Your task to perform on an android device: Open Reddit.com Image 0: 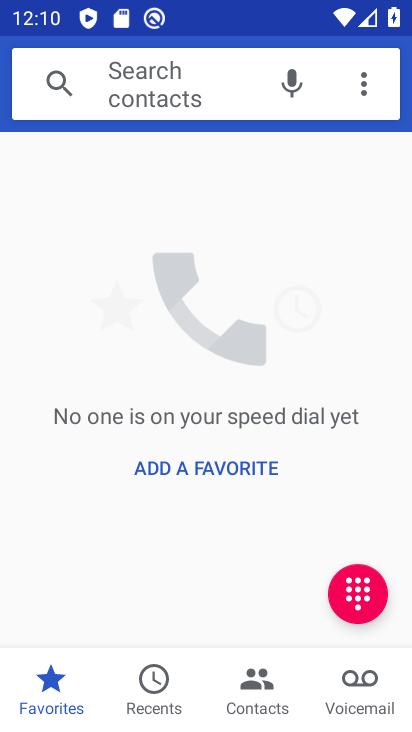
Step 0: press home button
Your task to perform on an android device: Open Reddit.com Image 1: 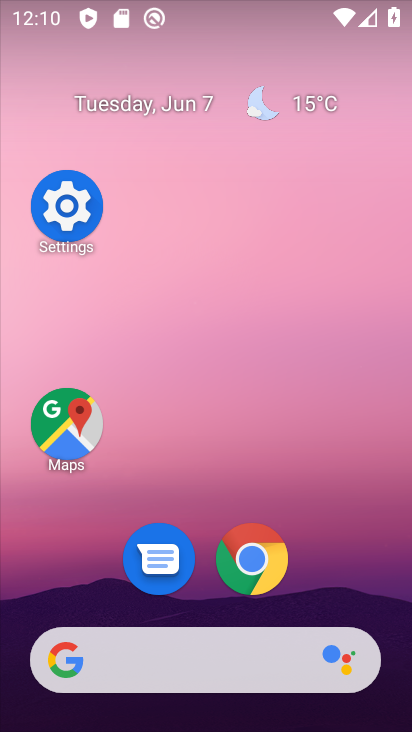
Step 1: drag from (285, 584) to (353, 349)
Your task to perform on an android device: Open Reddit.com Image 2: 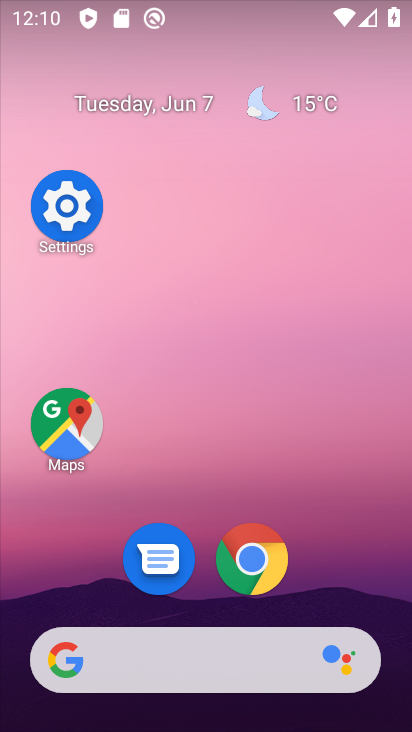
Step 2: drag from (307, 557) to (362, 39)
Your task to perform on an android device: Open Reddit.com Image 3: 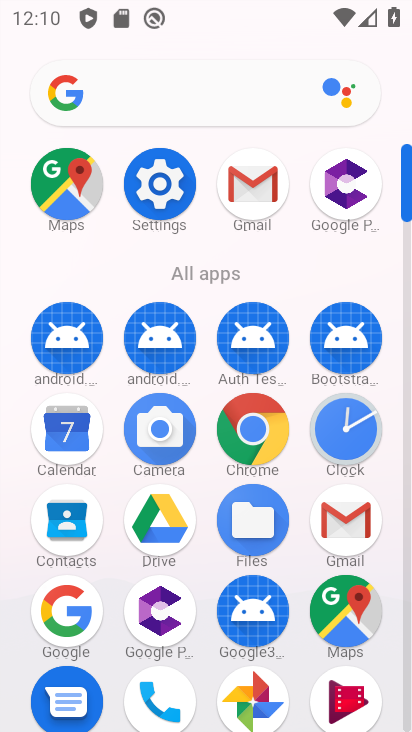
Step 3: drag from (62, 615) to (181, 240)
Your task to perform on an android device: Open Reddit.com Image 4: 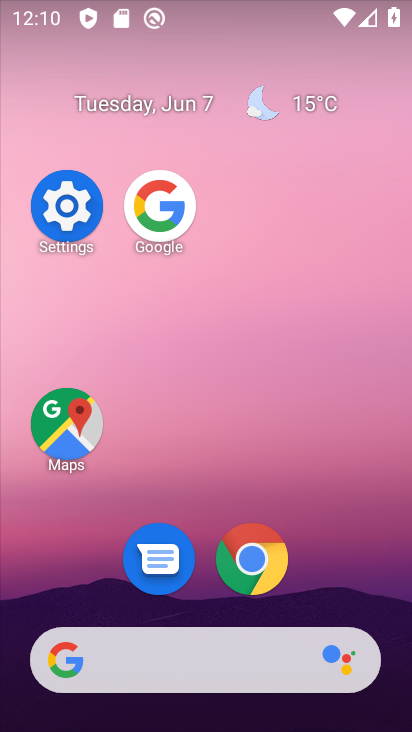
Step 4: click (161, 213)
Your task to perform on an android device: Open Reddit.com Image 5: 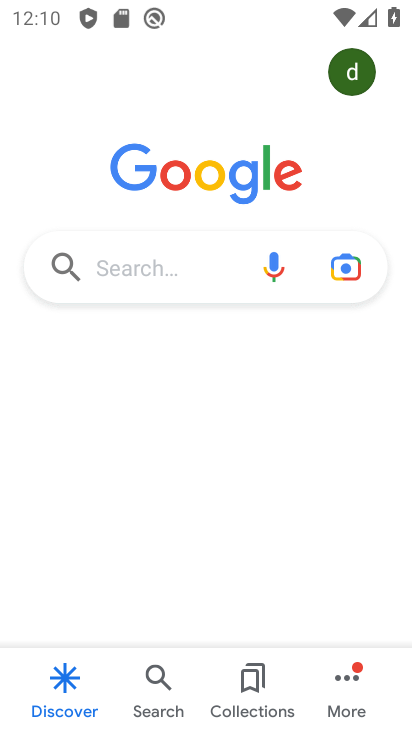
Step 5: click (136, 274)
Your task to perform on an android device: Open Reddit.com Image 6: 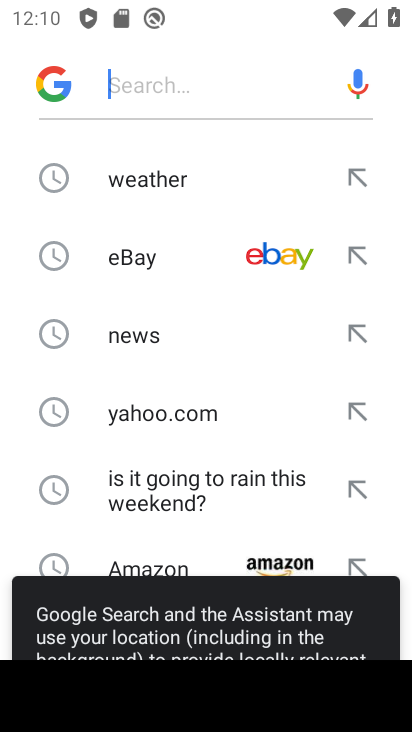
Step 6: drag from (114, 548) to (199, 215)
Your task to perform on an android device: Open Reddit.com Image 7: 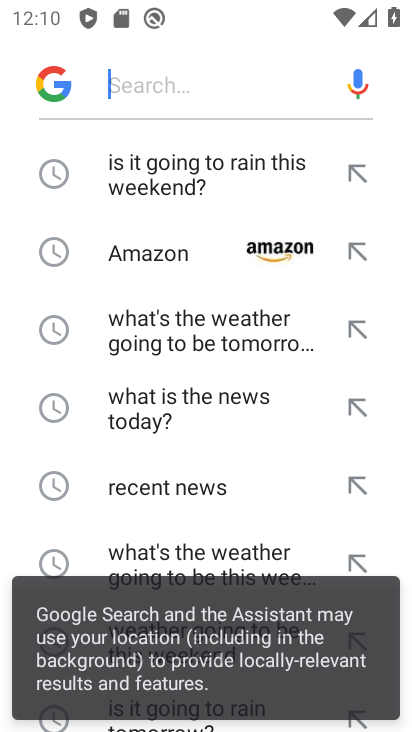
Step 7: drag from (149, 503) to (200, 159)
Your task to perform on an android device: Open Reddit.com Image 8: 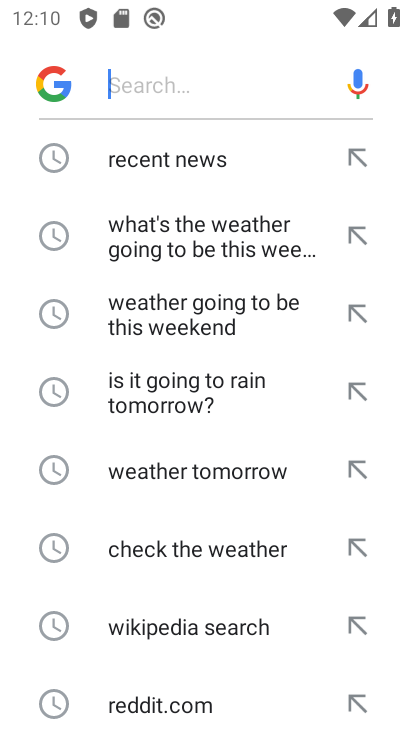
Step 8: drag from (206, 513) to (270, 112)
Your task to perform on an android device: Open Reddit.com Image 9: 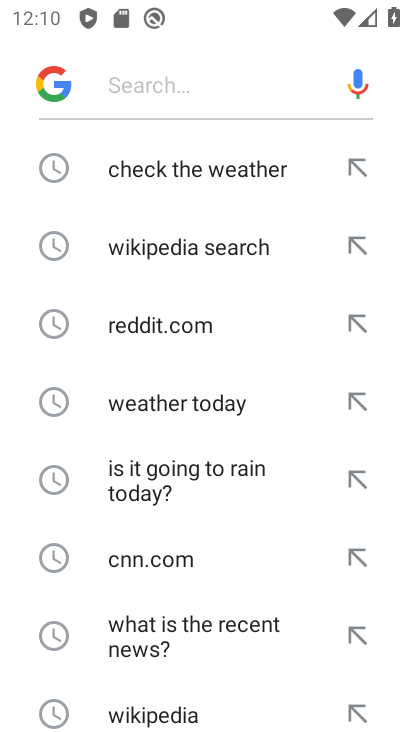
Step 9: click (179, 304)
Your task to perform on an android device: Open Reddit.com Image 10: 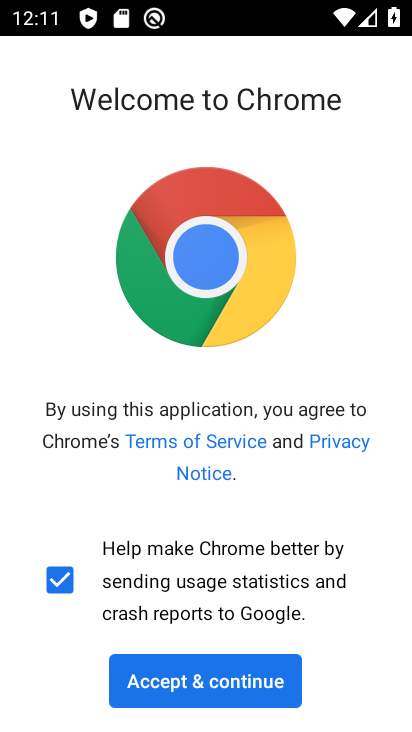
Step 10: press home button
Your task to perform on an android device: Open Reddit.com Image 11: 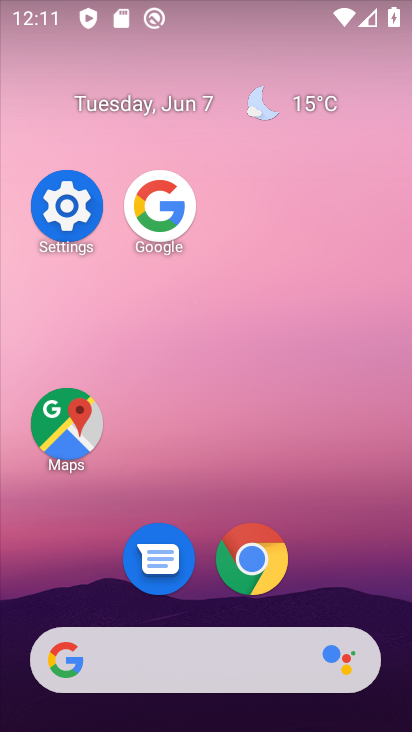
Step 11: click (151, 221)
Your task to perform on an android device: Open Reddit.com Image 12: 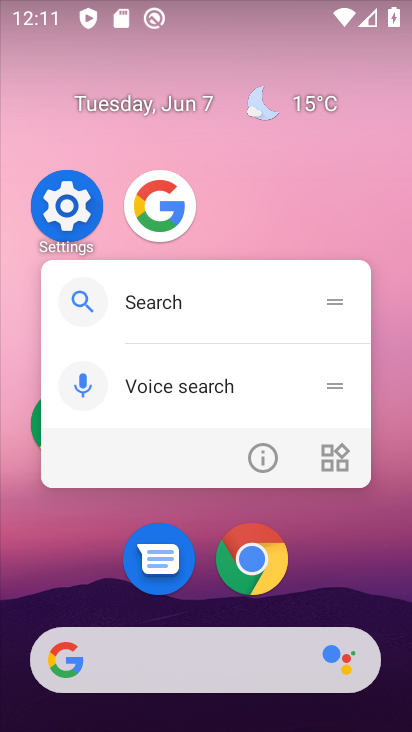
Step 12: click (155, 219)
Your task to perform on an android device: Open Reddit.com Image 13: 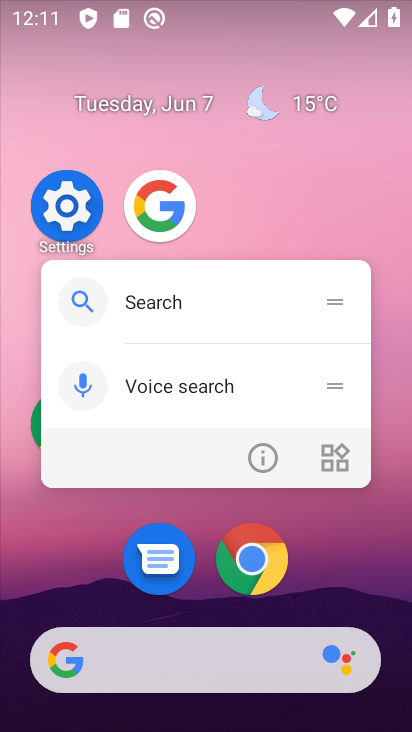
Step 13: click (175, 205)
Your task to perform on an android device: Open Reddit.com Image 14: 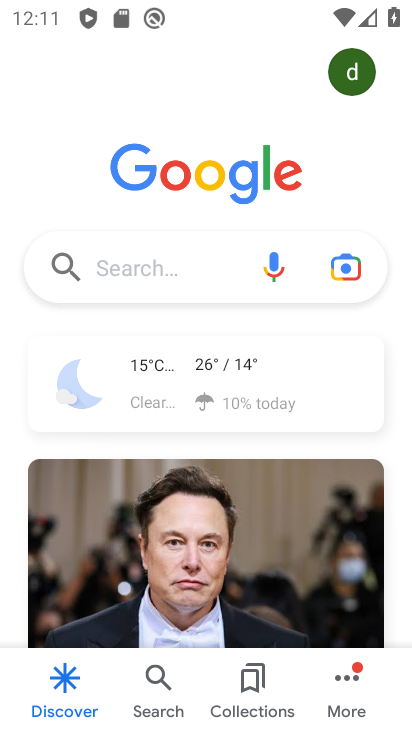
Step 14: click (124, 279)
Your task to perform on an android device: Open Reddit.com Image 15: 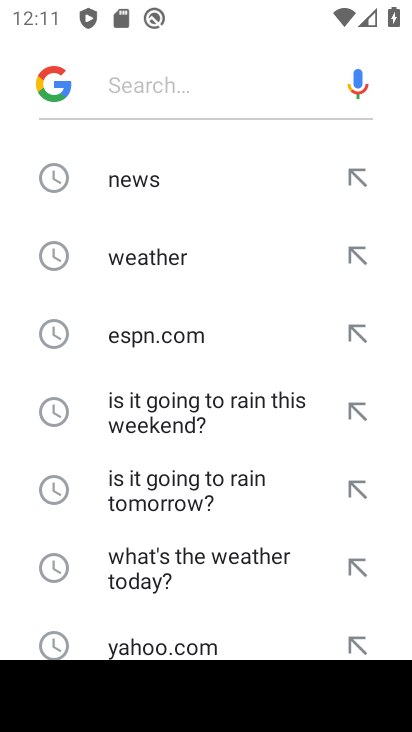
Step 15: drag from (104, 453) to (157, 123)
Your task to perform on an android device: Open Reddit.com Image 16: 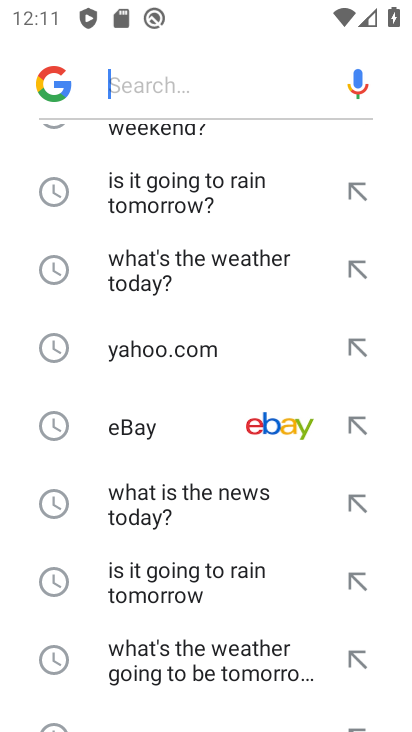
Step 16: drag from (98, 593) to (204, 168)
Your task to perform on an android device: Open Reddit.com Image 17: 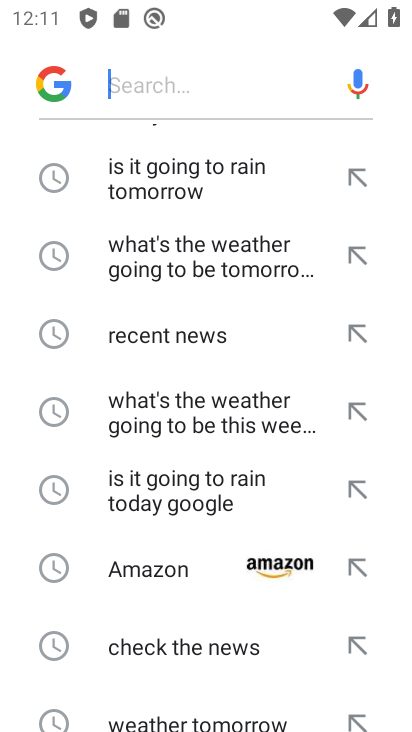
Step 17: drag from (146, 614) to (217, 219)
Your task to perform on an android device: Open Reddit.com Image 18: 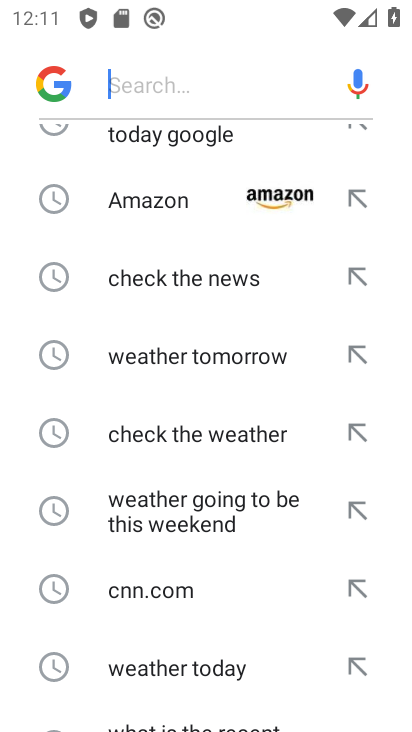
Step 18: drag from (167, 629) to (244, 191)
Your task to perform on an android device: Open Reddit.com Image 19: 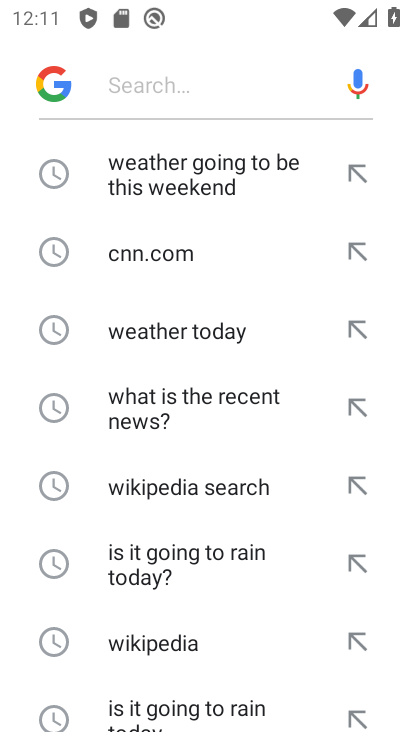
Step 19: drag from (166, 551) to (227, 163)
Your task to perform on an android device: Open Reddit.com Image 20: 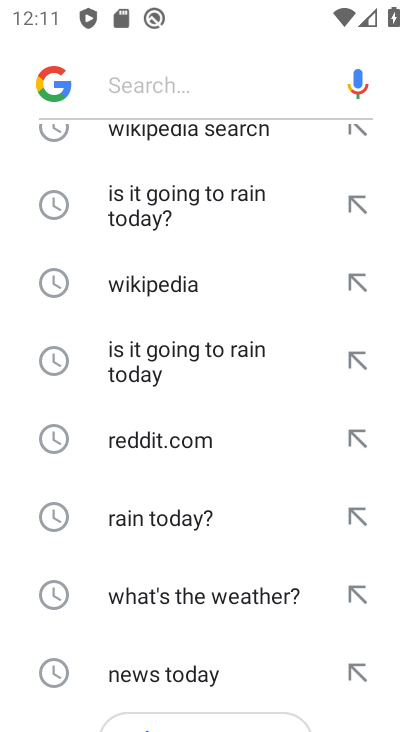
Step 20: click (189, 451)
Your task to perform on an android device: Open Reddit.com Image 21: 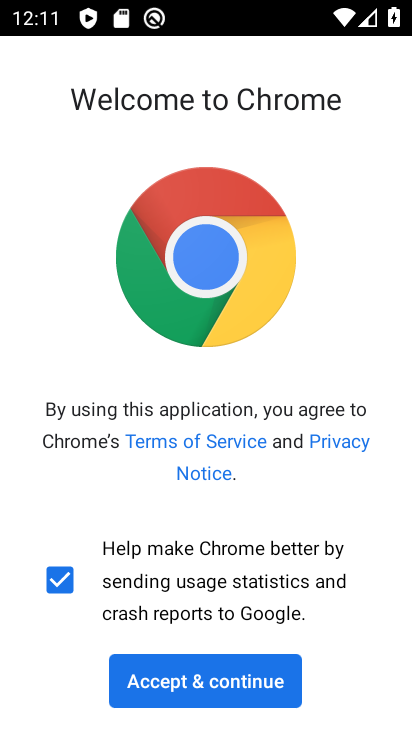
Step 21: click (208, 690)
Your task to perform on an android device: Open Reddit.com Image 22: 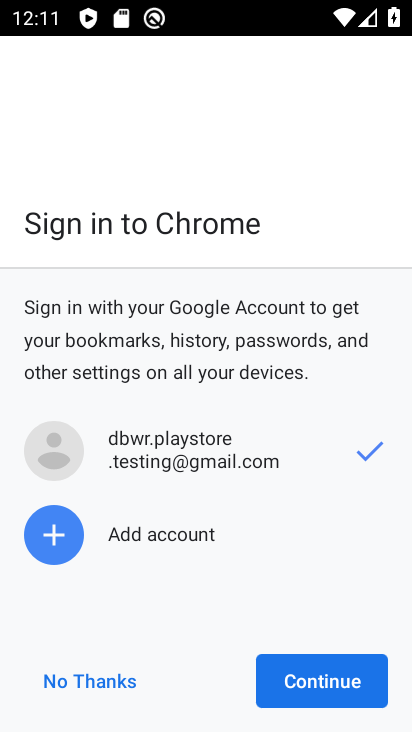
Step 22: click (344, 698)
Your task to perform on an android device: Open Reddit.com Image 23: 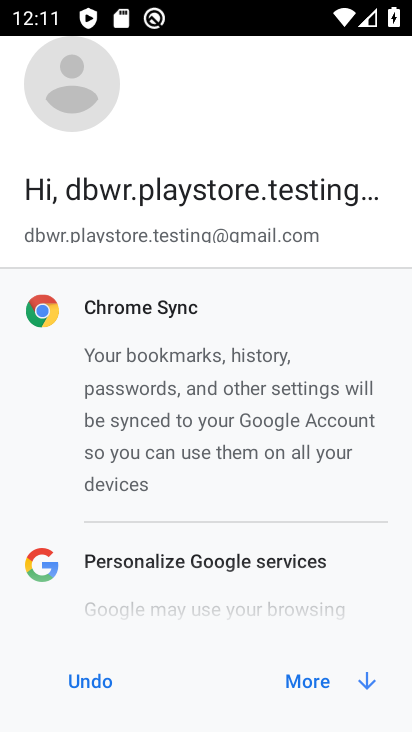
Step 23: click (343, 681)
Your task to perform on an android device: Open Reddit.com Image 24: 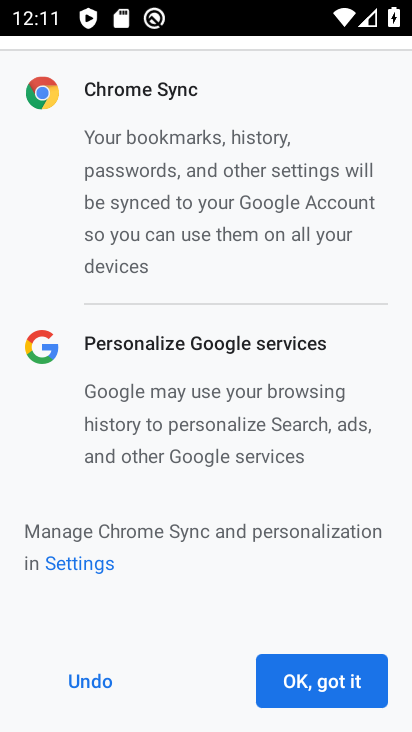
Step 24: click (341, 680)
Your task to perform on an android device: Open Reddit.com Image 25: 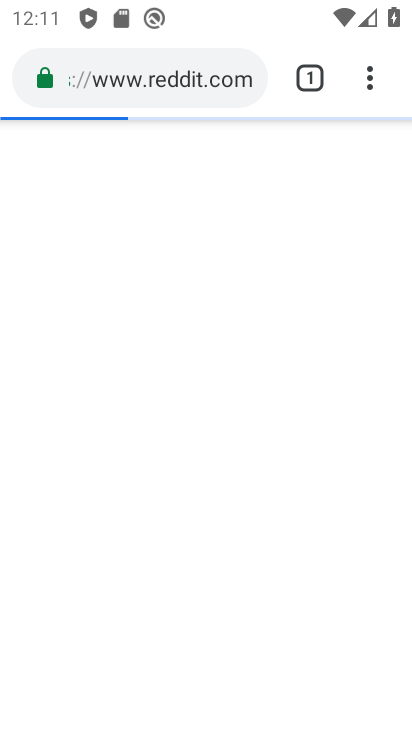
Step 25: task complete